Your task to perform on an android device: Do I have any events this weekend? Image 0: 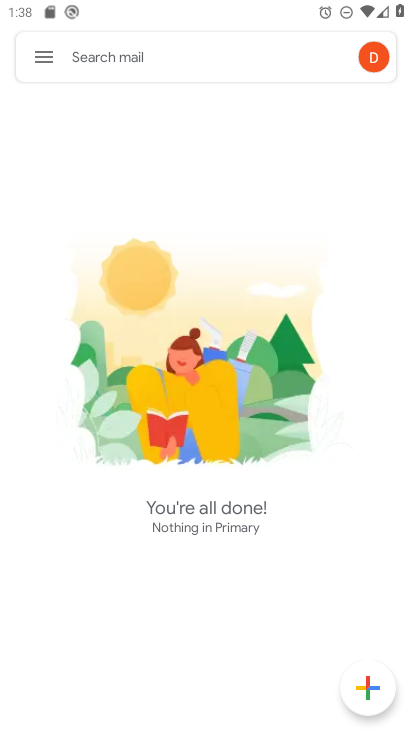
Step 0: press home button
Your task to perform on an android device: Do I have any events this weekend? Image 1: 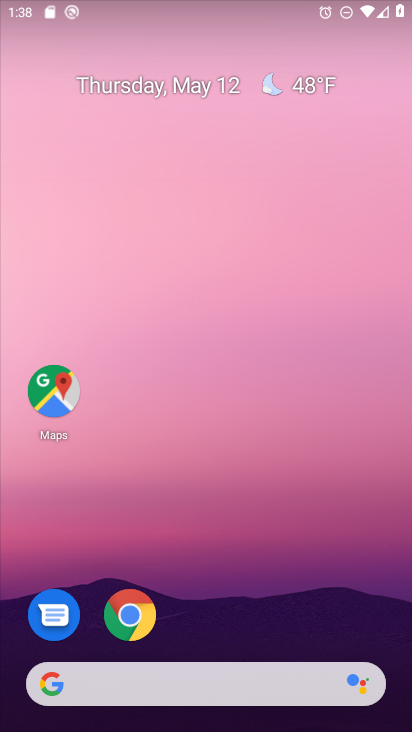
Step 1: drag from (251, 665) to (342, 4)
Your task to perform on an android device: Do I have any events this weekend? Image 2: 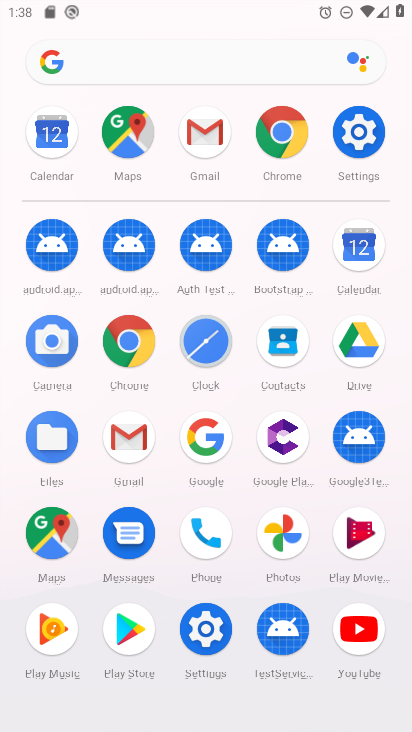
Step 2: click (352, 257)
Your task to perform on an android device: Do I have any events this weekend? Image 3: 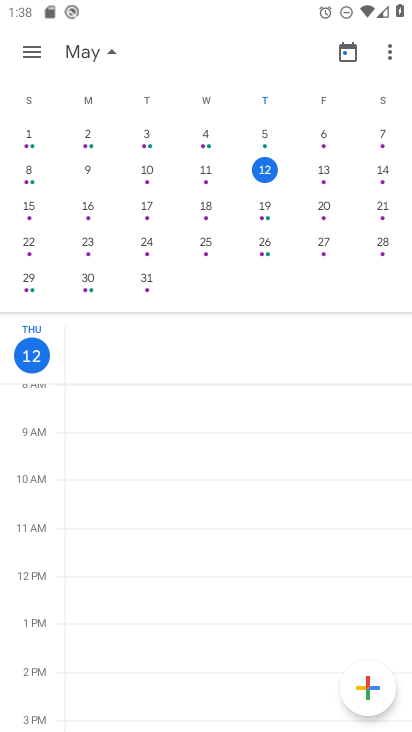
Step 3: click (381, 167)
Your task to perform on an android device: Do I have any events this weekend? Image 4: 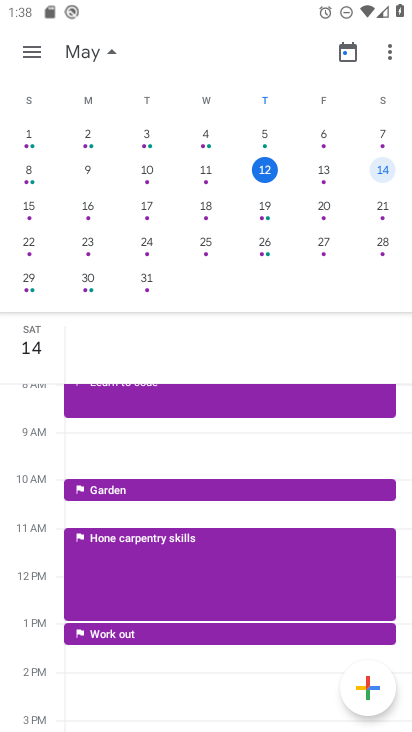
Step 4: click (26, 51)
Your task to perform on an android device: Do I have any events this weekend? Image 5: 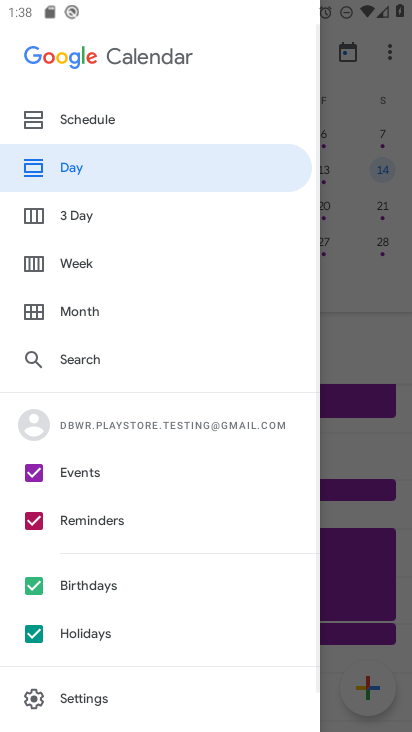
Step 5: click (132, 263)
Your task to perform on an android device: Do I have any events this weekend? Image 6: 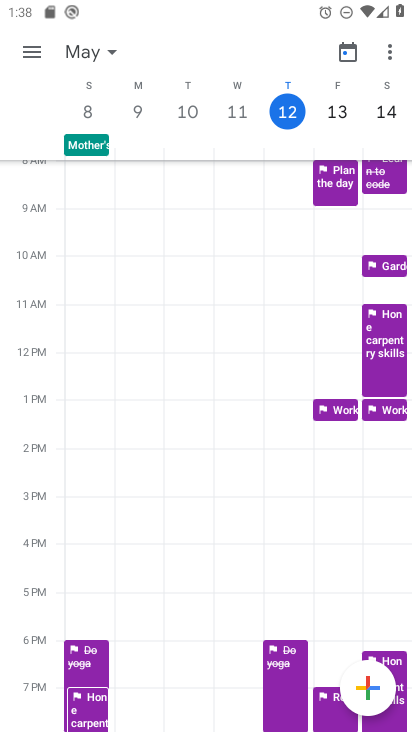
Step 6: task complete